Your task to perform on an android device: turn on the 12-hour format for clock Image 0: 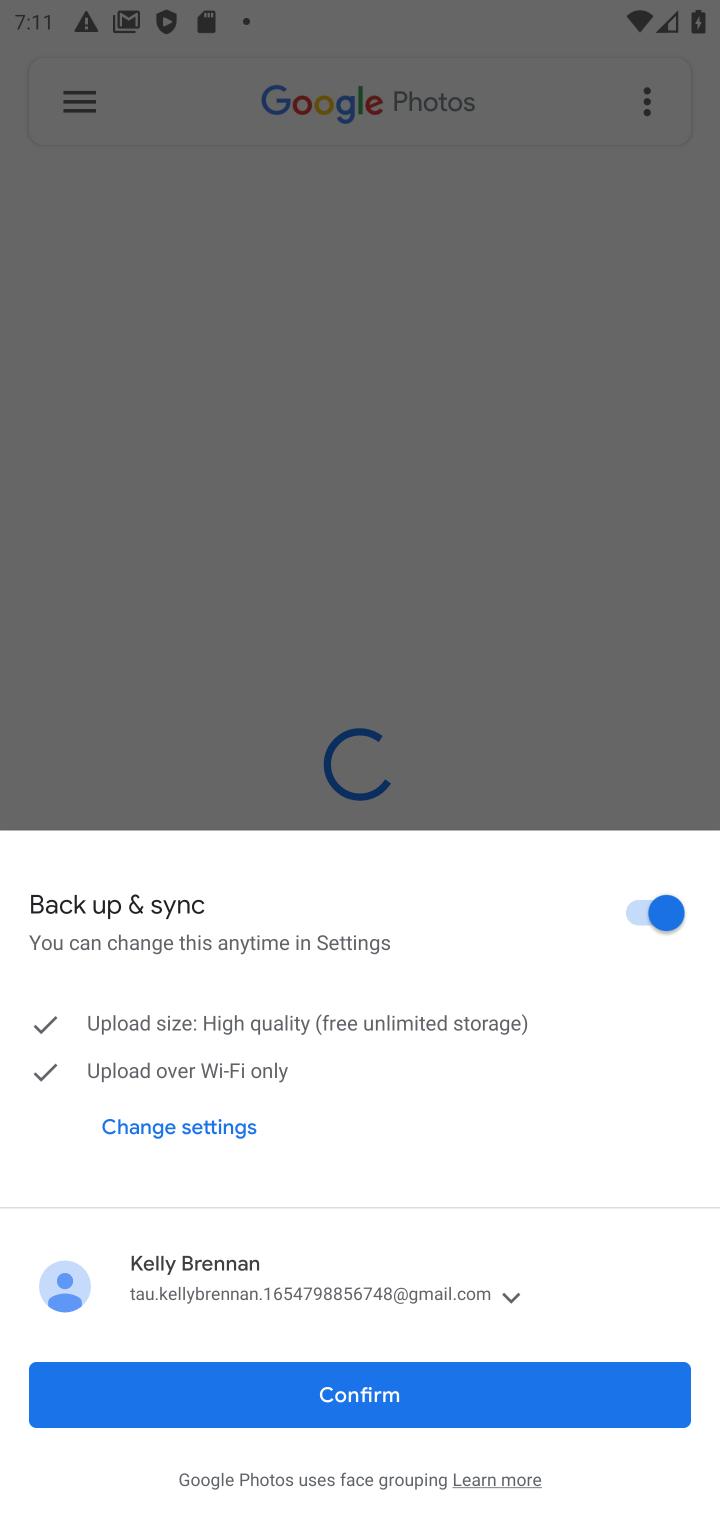
Step 0: click (438, 1375)
Your task to perform on an android device: turn on the 12-hour format for clock Image 1: 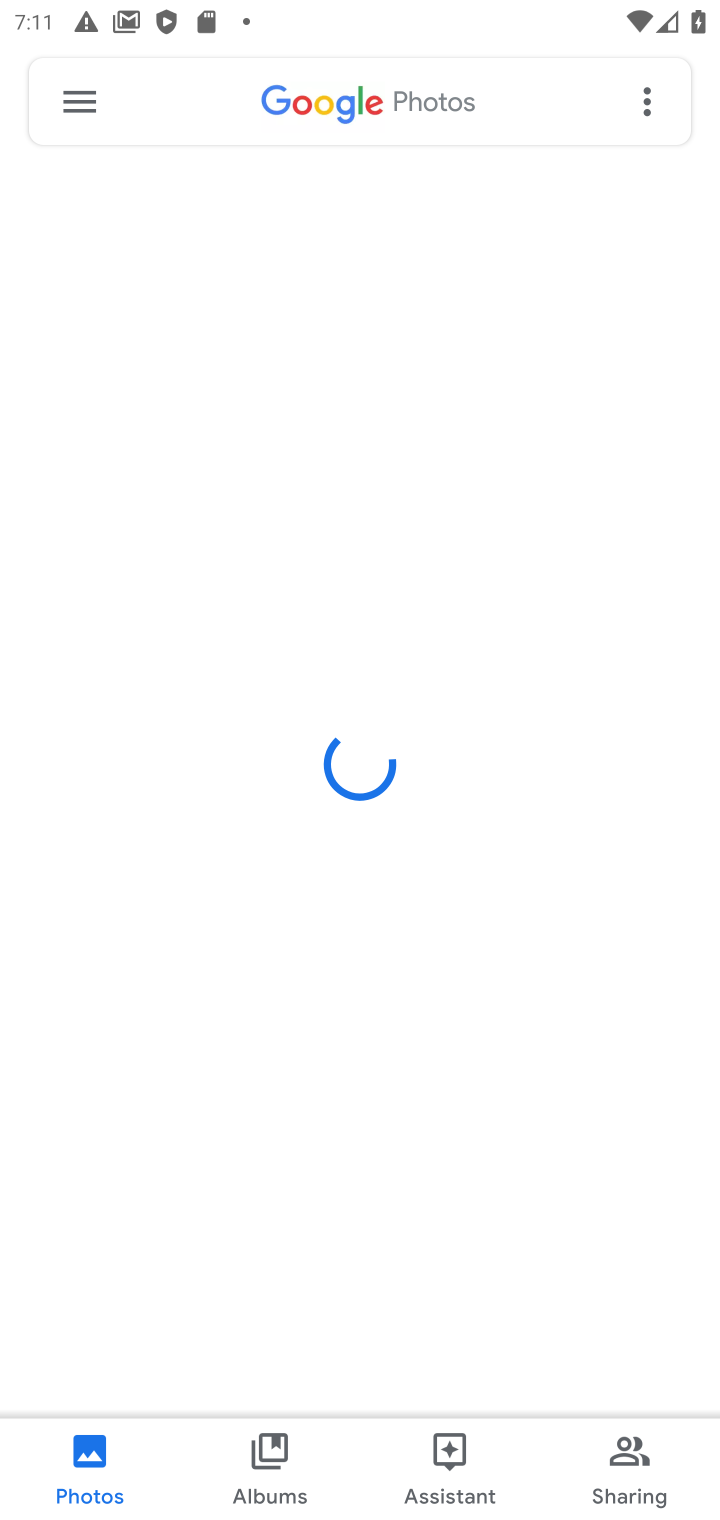
Step 1: click (402, 1403)
Your task to perform on an android device: turn on the 12-hour format for clock Image 2: 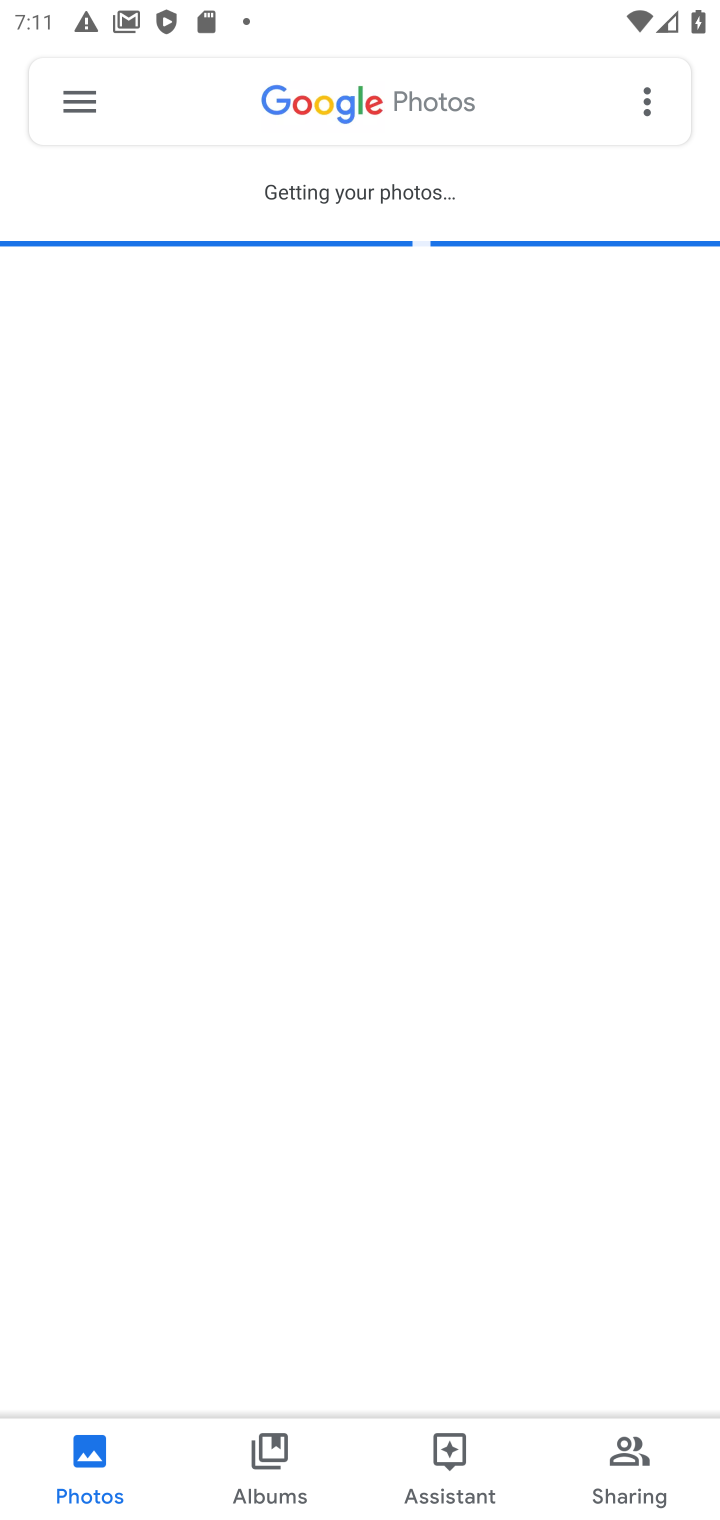
Step 2: task complete